Your task to perform on an android device: change text size in settings app Image 0: 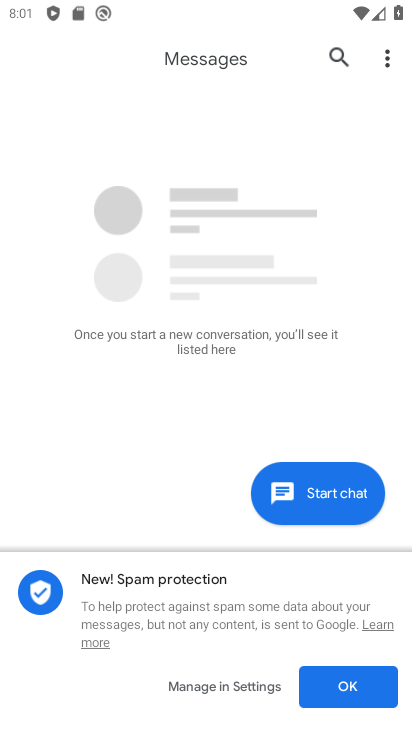
Step 0: press home button
Your task to perform on an android device: change text size in settings app Image 1: 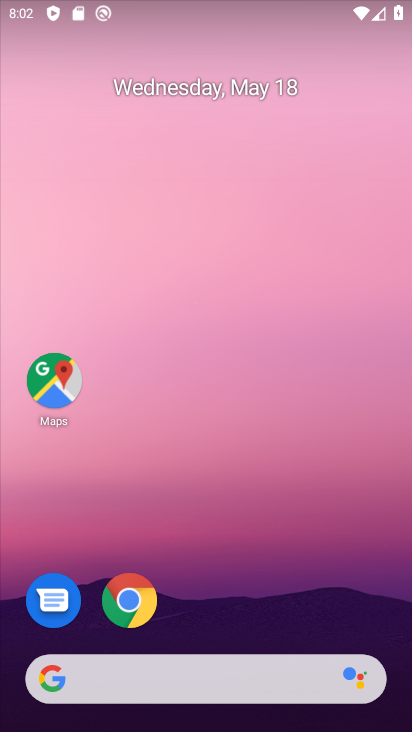
Step 1: drag from (24, 643) to (236, 109)
Your task to perform on an android device: change text size in settings app Image 2: 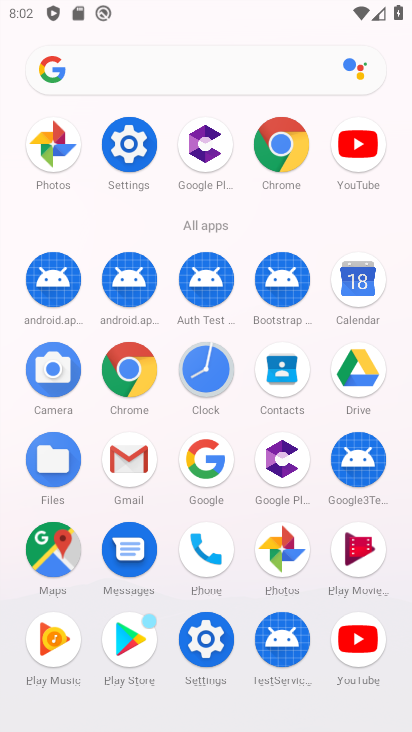
Step 2: click (122, 163)
Your task to perform on an android device: change text size in settings app Image 3: 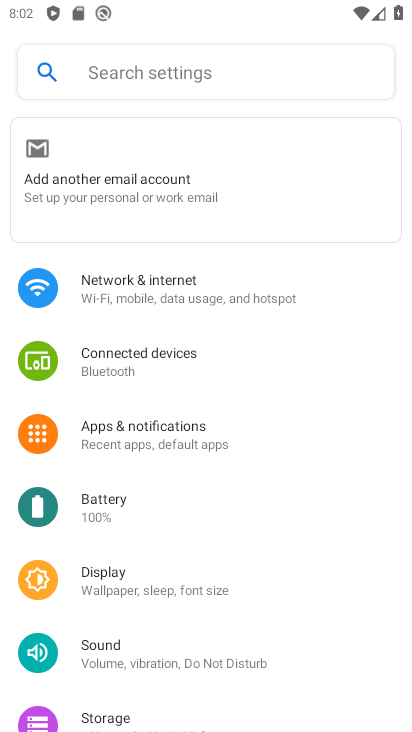
Step 3: click (157, 597)
Your task to perform on an android device: change text size in settings app Image 4: 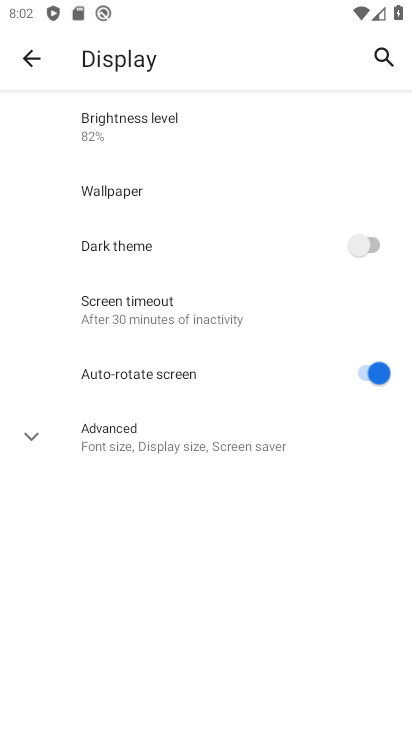
Step 4: click (184, 441)
Your task to perform on an android device: change text size in settings app Image 5: 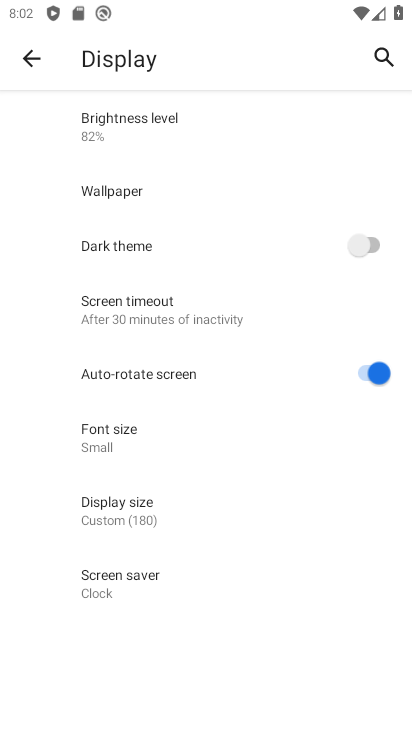
Step 5: click (184, 430)
Your task to perform on an android device: change text size in settings app Image 6: 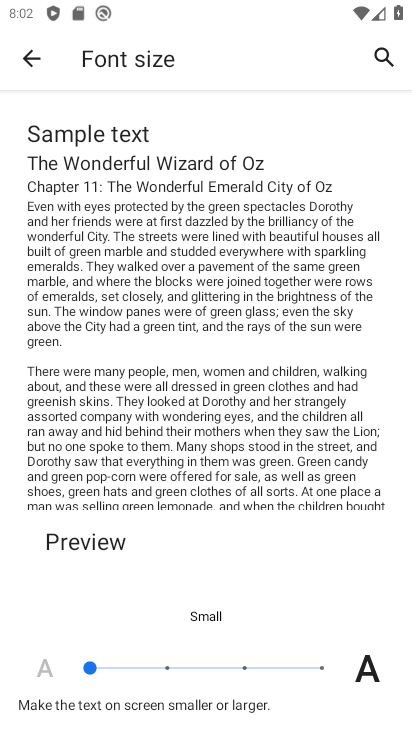
Step 6: click (170, 663)
Your task to perform on an android device: change text size in settings app Image 7: 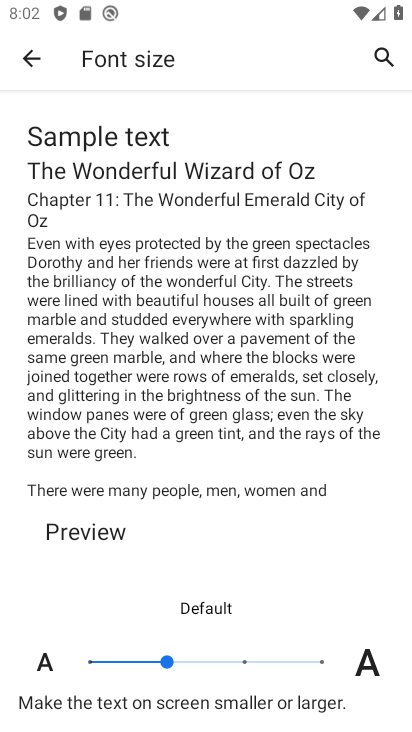
Step 7: task complete